Your task to perform on an android device: Open the stopwatch Image 0: 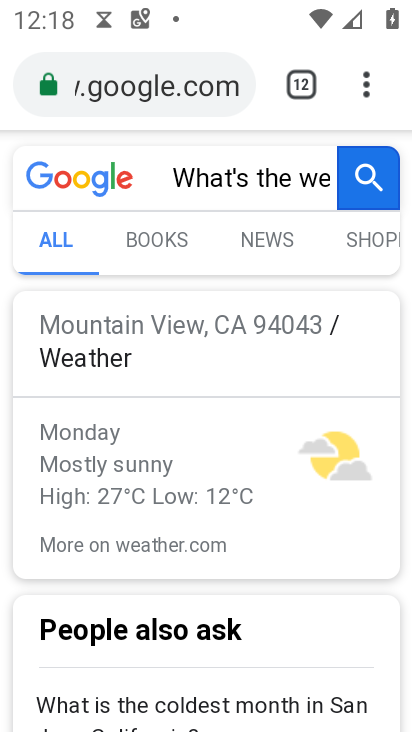
Step 0: press home button
Your task to perform on an android device: Open the stopwatch Image 1: 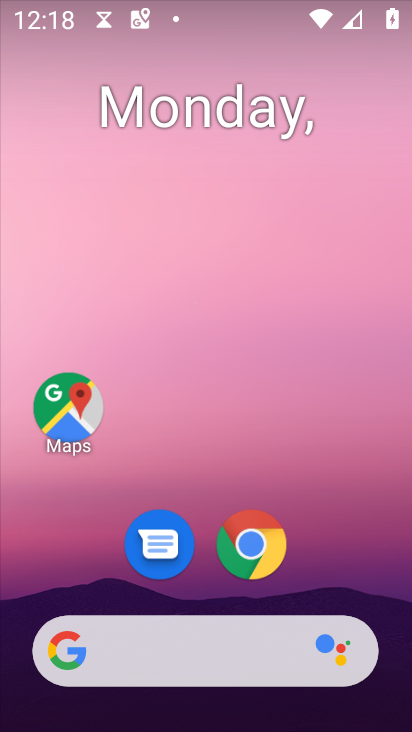
Step 1: drag from (336, 590) to (332, 319)
Your task to perform on an android device: Open the stopwatch Image 2: 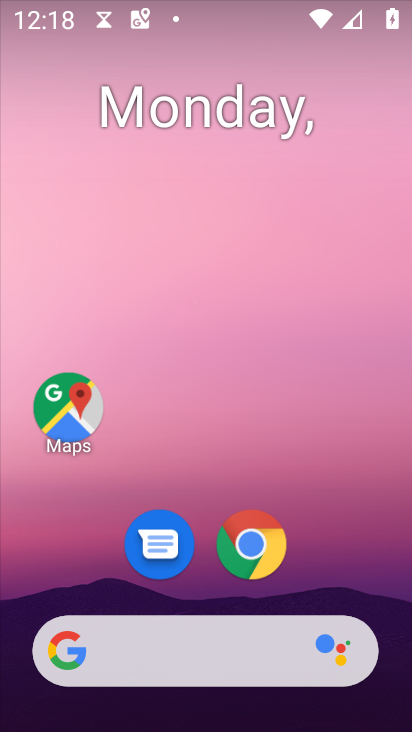
Step 2: drag from (320, 513) to (340, 227)
Your task to perform on an android device: Open the stopwatch Image 3: 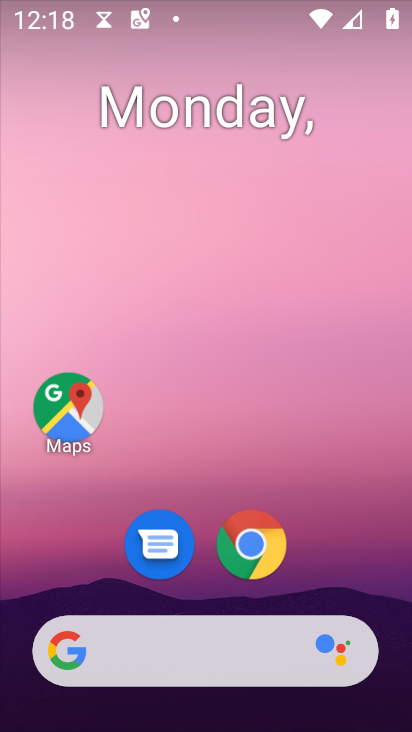
Step 3: drag from (336, 570) to (323, 283)
Your task to perform on an android device: Open the stopwatch Image 4: 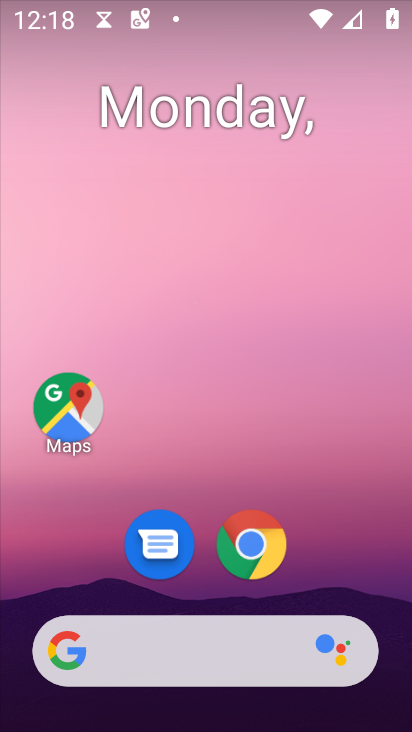
Step 4: drag from (315, 535) to (327, 287)
Your task to perform on an android device: Open the stopwatch Image 5: 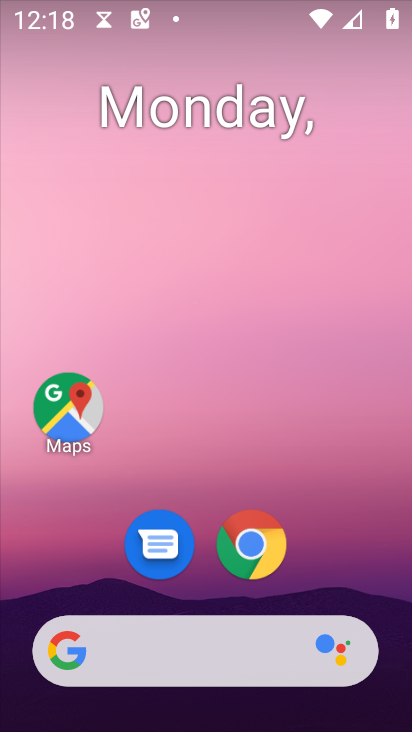
Step 5: drag from (308, 590) to (294, 244)
Your task to perform on an android device: Open the stopwatch Image 6: 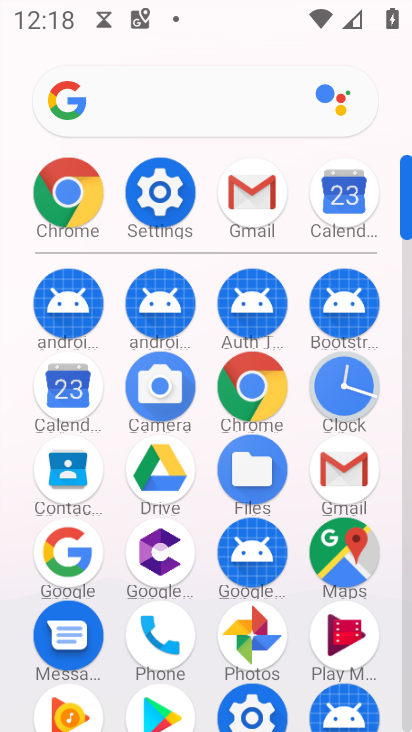
Step 6: click (348, 386)
Your task to perform on an android device: Open the stopwatch Image 7: 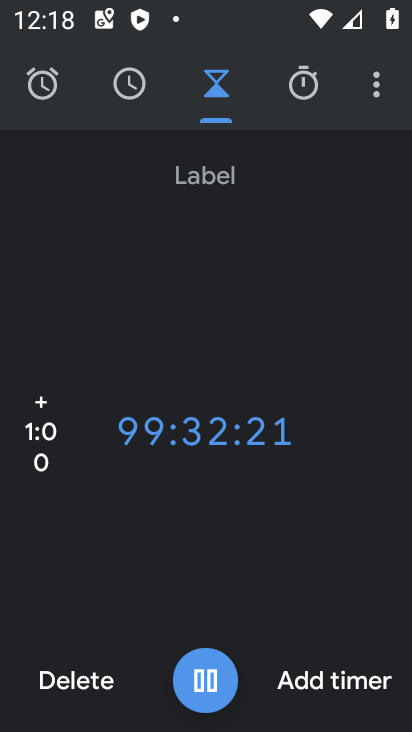
Step 7: click (297, 90)
Your task to perform on an android device: Open the stopwatch Image 8: 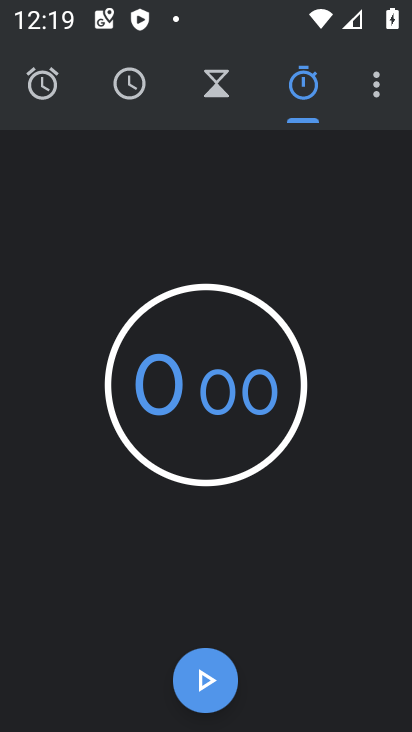
Step 8: task complete